Your task to perform on an android device: allow notifications from all sites in the chrome app Image 0: 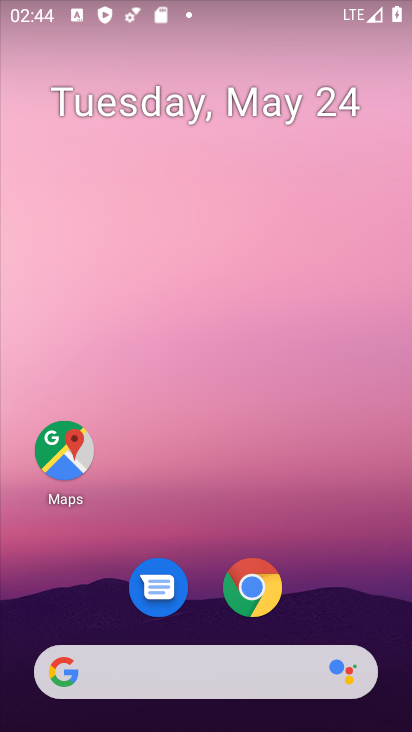
Step 0: click (254, 595)
Your task to perform on an android device: allow notifications from all sites in the chrome app Image 1: 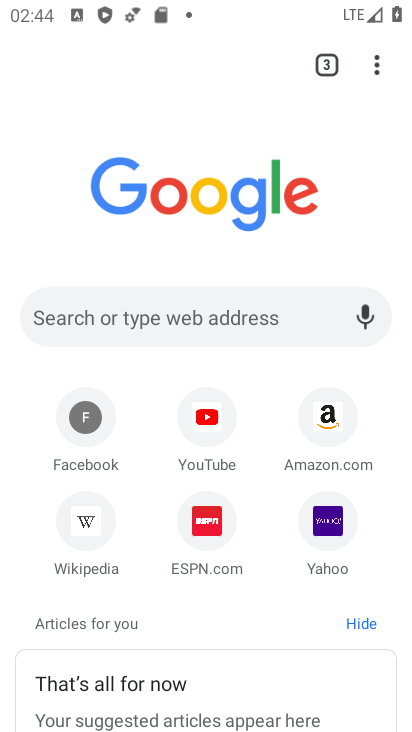
Step 1: click (375, 63)
Your task to perform on an android device: allow notifications from all sites in the chrome app Image 2: 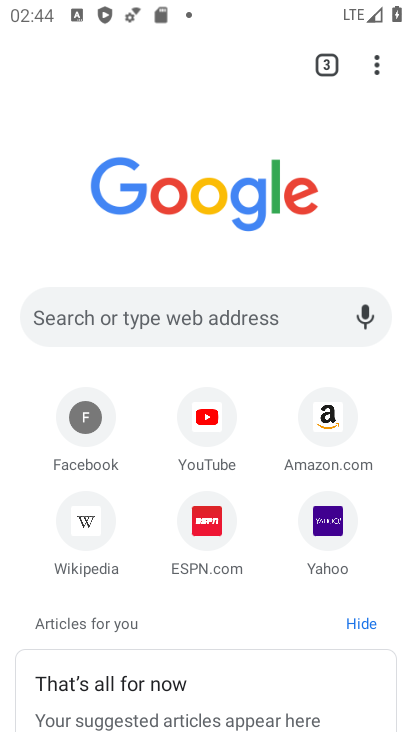
Step 2: click (374, 62)
Your task to perform on an android device: allow notifications from all sites in the chrome app Image 3: 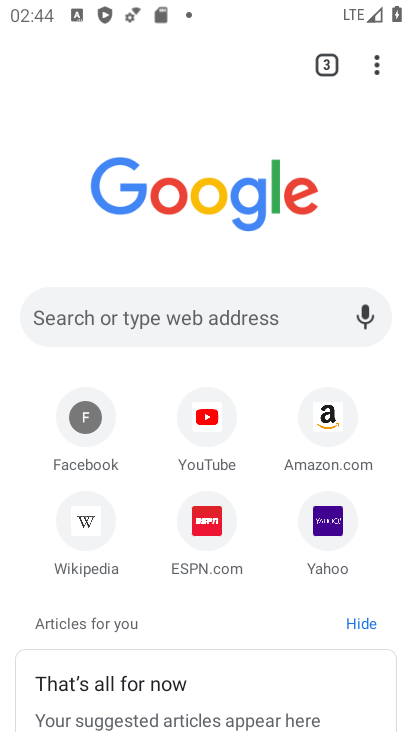
Step 3: click (371, 81)
Your task to perform on an android device: allow notifications from all sites in the chrome app Image 4: 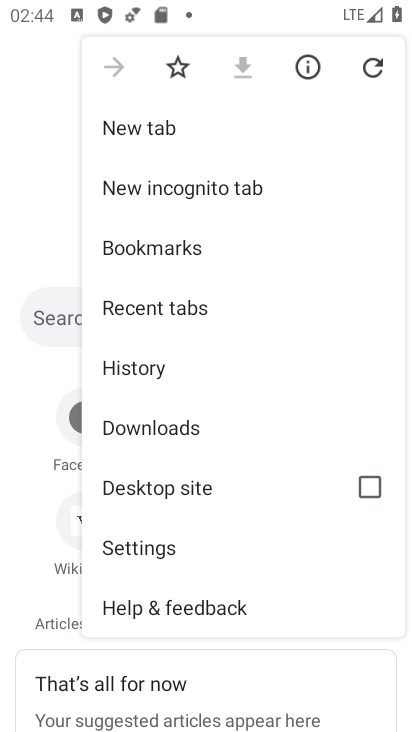
Step 4: click (165, 554)
Your task to perform on an android device: allow notifications from all sites in the chrome app Image 5: 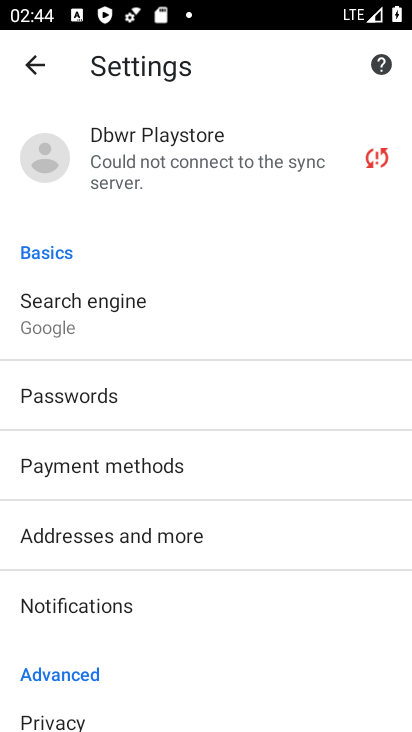
Step 5: click (135, 598)
Your task to perform on an android device: allow notifications from all sites in the chrome app Image 6: 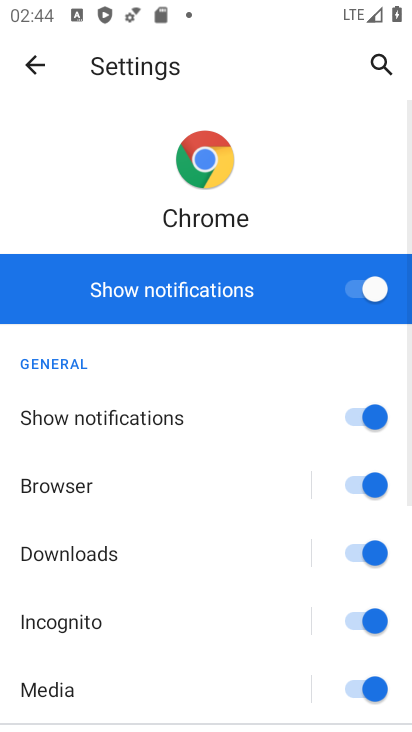
Step 6: task complete